Your task to perform on an android device: empty trash in the gmail app Image 0: 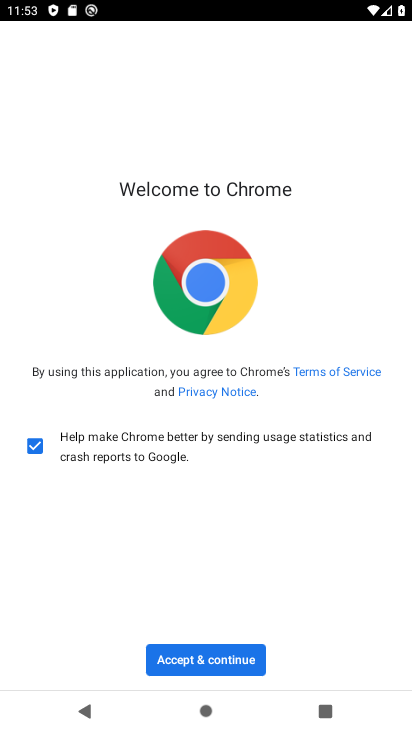
Step 0: click (205, 652)
Your task to perform on an android device: empty trash in the gmail app Image 1: 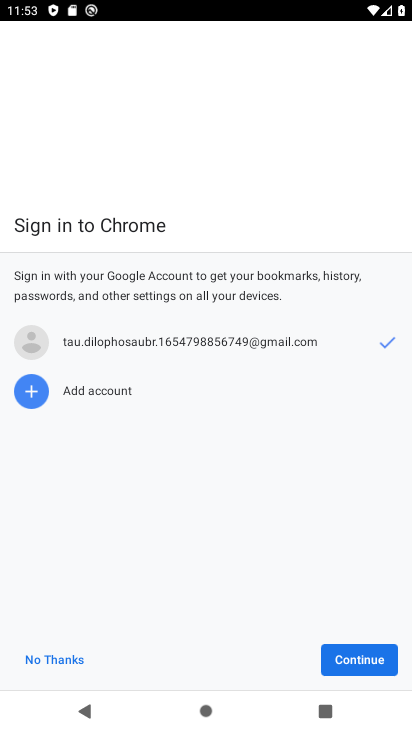
Step 1: press home button
Your task to perform on an android device: empty trash in the gmail app Image 2: 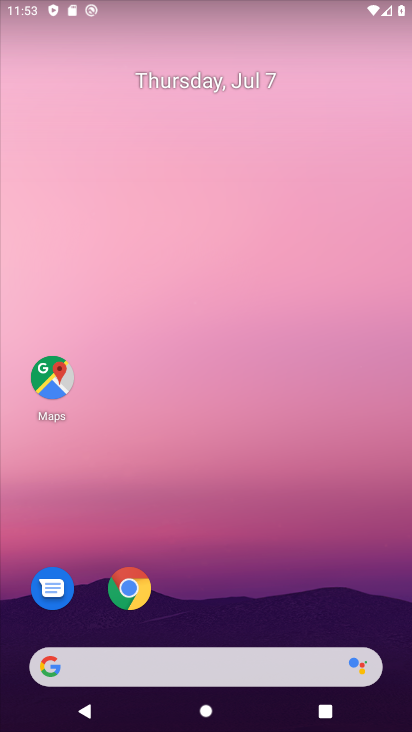
Step 2: drag from (216, 621) to (216, 118)
Your task to perform on an android device: empty trash in the gmail app Image 3: 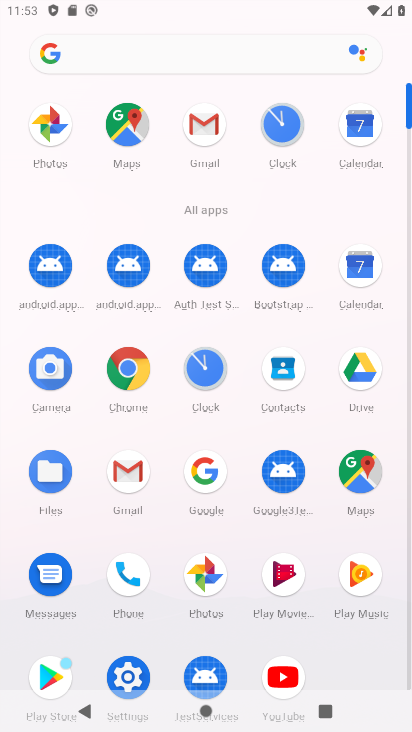
Step 3: click (200, 117)
Your task to perform on an android device: empty trash in the gmail app Image 4: 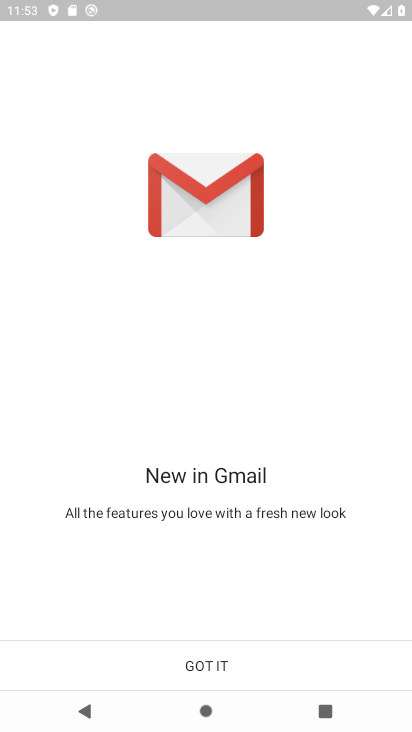
Step 4: click (208, 659)
Your task to perform on an android device: empty trash in the gmail app Image 5: 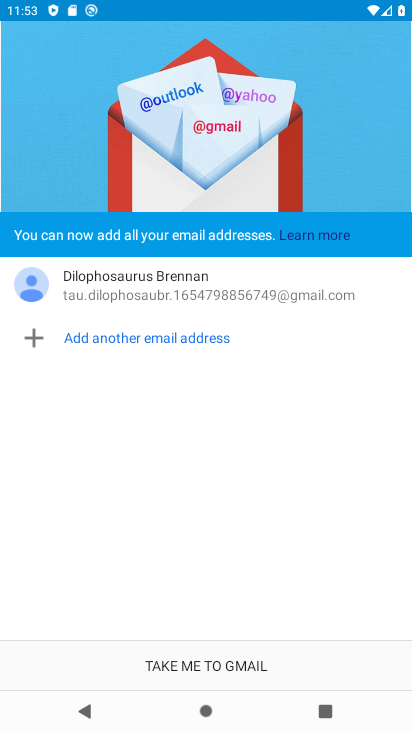
Step 5: click (202, 667)
Your task to perform on an android device: empty trash in the gmail app Image 6: 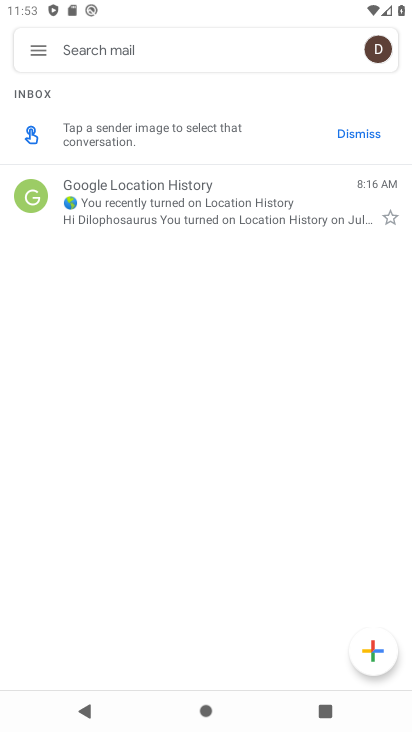
Step 6: click (37, 45)
Your task to perform on an android device: empty trash in the gmail app Image 7: 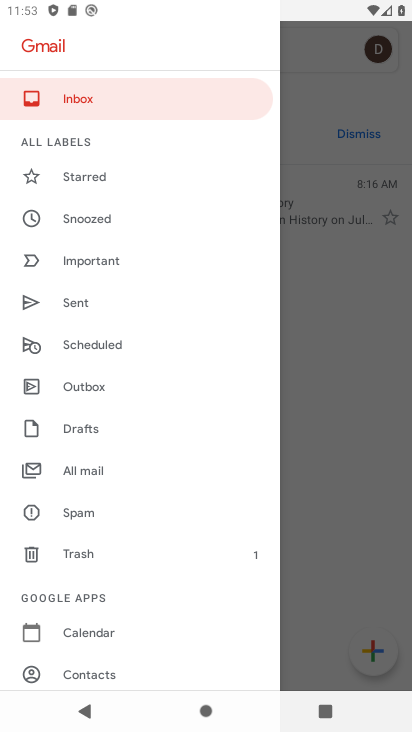
Step 7: click (93, 554)
Your task to perform on an android device: empty trash in the gmail app Image 8: 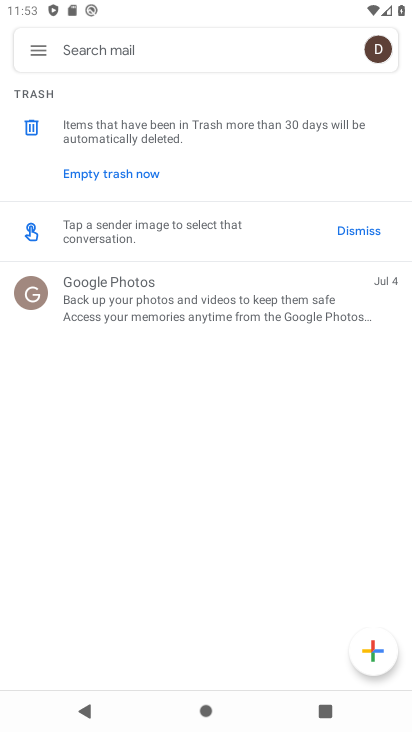
Step 8: click (124, 175)
Your task to perform on an android device: empty trash in the gmail app Image 9: 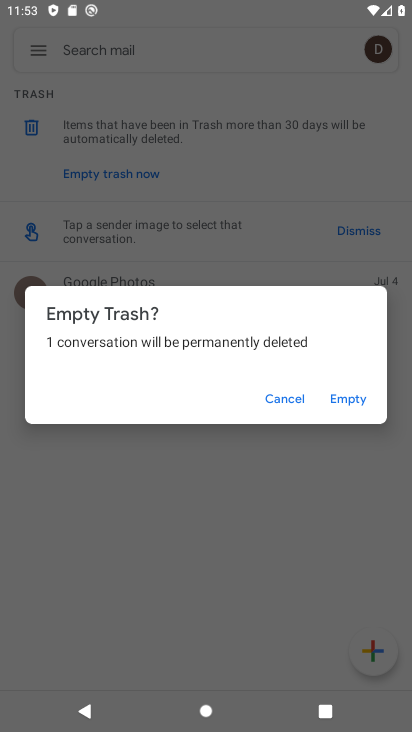
Step 9: click (347, 399)
Your task to perform on an android device: empty trash in the gmail app Image 10: 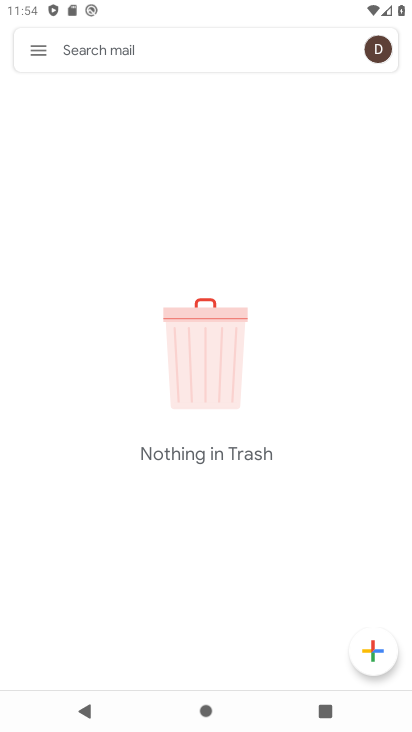
Step 10: task complete